Your task to perform on an android device: Show me popular videos on Youtube Image 0: 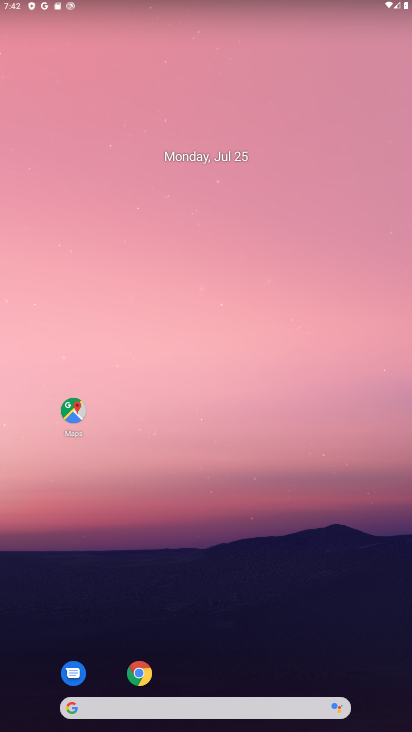
Step 0: drag from (212, 653) to (186, 77)
Your task to perform on an android device: Show me popular videos on Youtube Image 1: 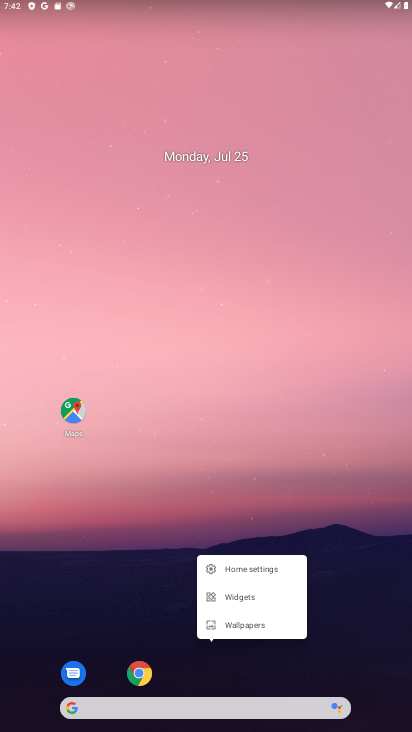
Step 1: click (199, 419)
Your task to perform on an android device: Show me popular videos on Youtube Image 2: 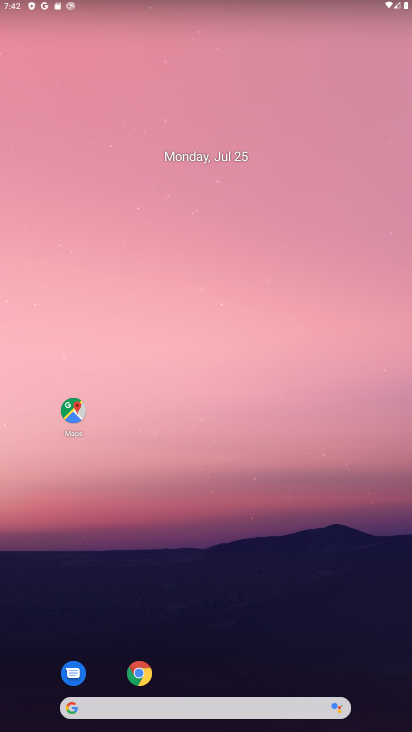
Step 2: drag from (248, 688) to (183, 12)
Your task to perform on an android device: Show me popular videos on Youtube Image 3: 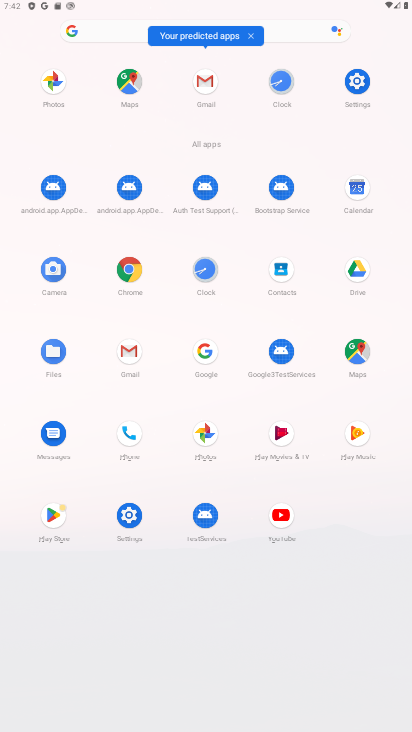
Step 3: click (288, 522)
Your task to perform on an android device: Show me popular videos on Youtube Image 4: 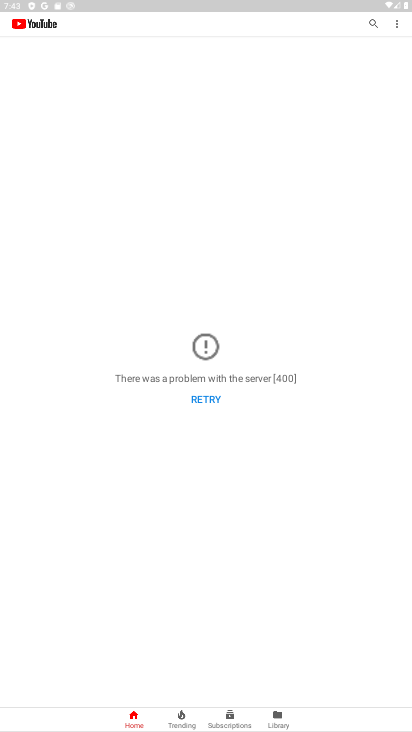
Step 4: task complete